Your task to perform on an android device: all mails in gmail Image 0: 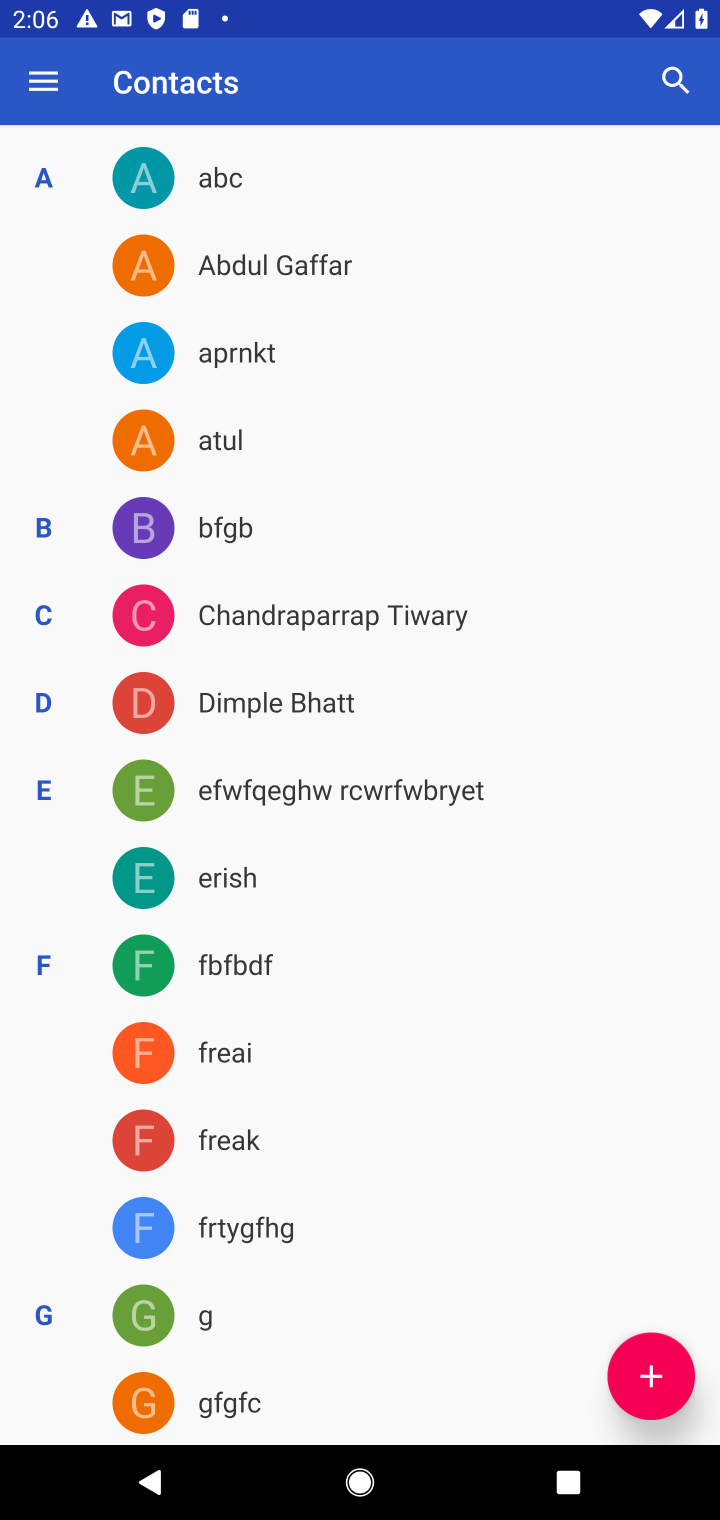
Step 0: press home button
Your task to perform on an android device: all mails in gmail Image 1: 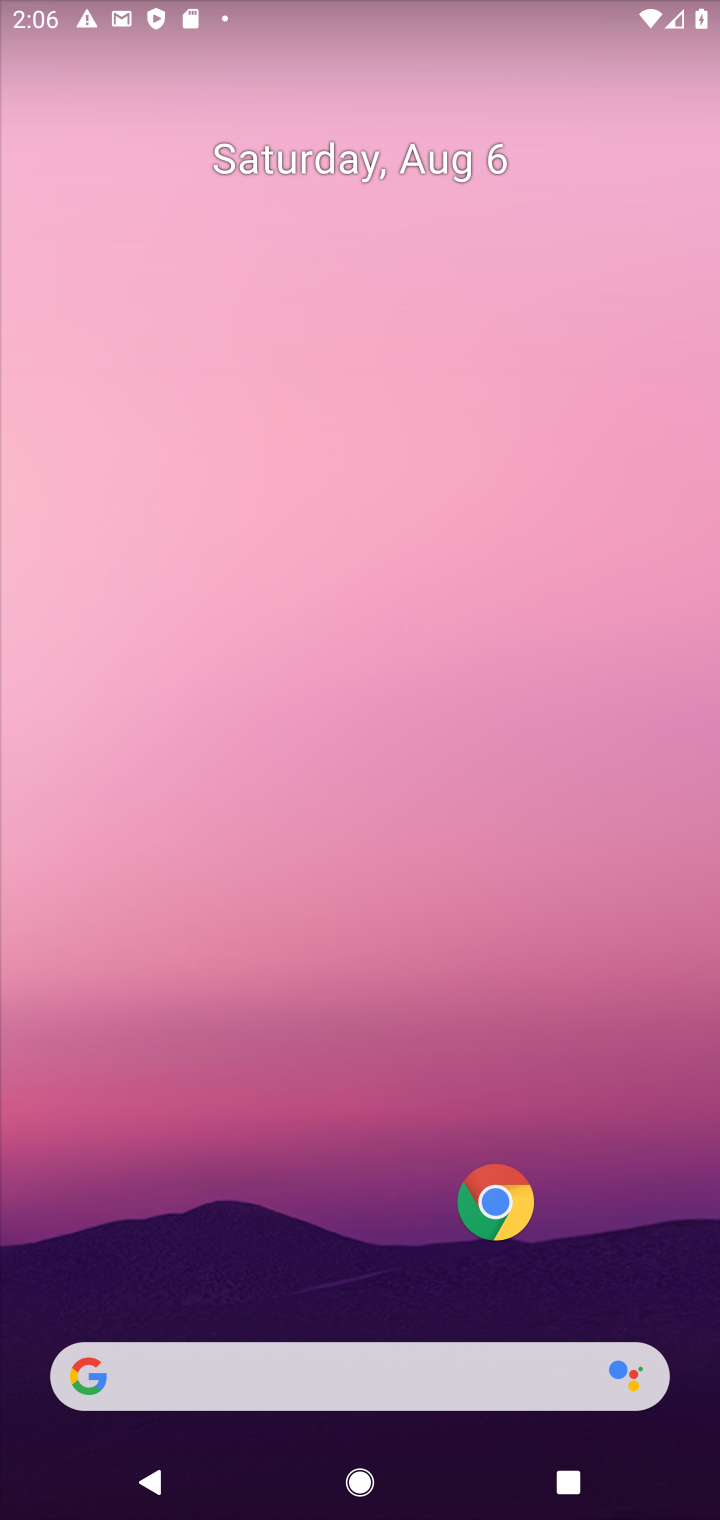
Step 1: click (351, 246)
Your task to perform on an android device: all mails in gmail Image 2: 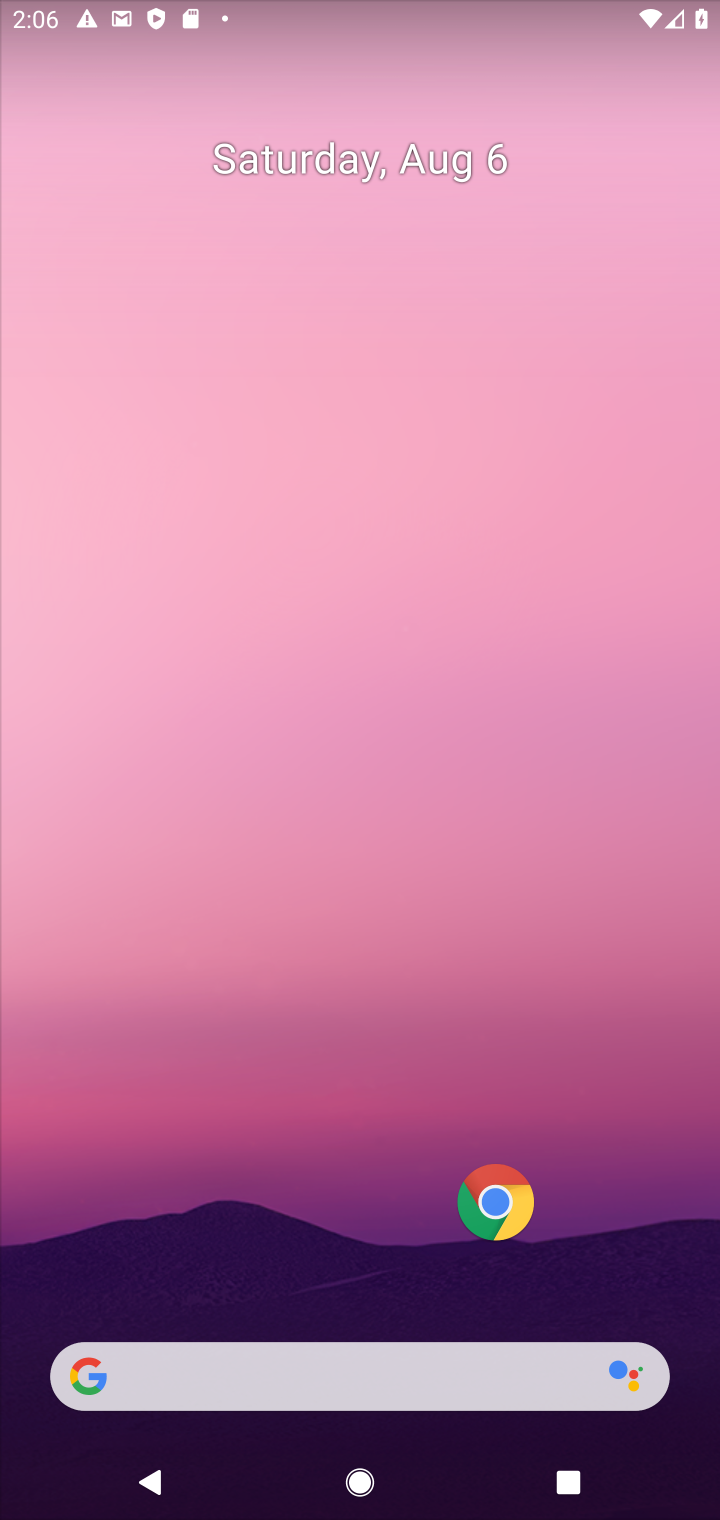
Step 2: drag from (275, 1245) to (452, 28)
Your task to perform on an android device: all mails in gmail Image 3: 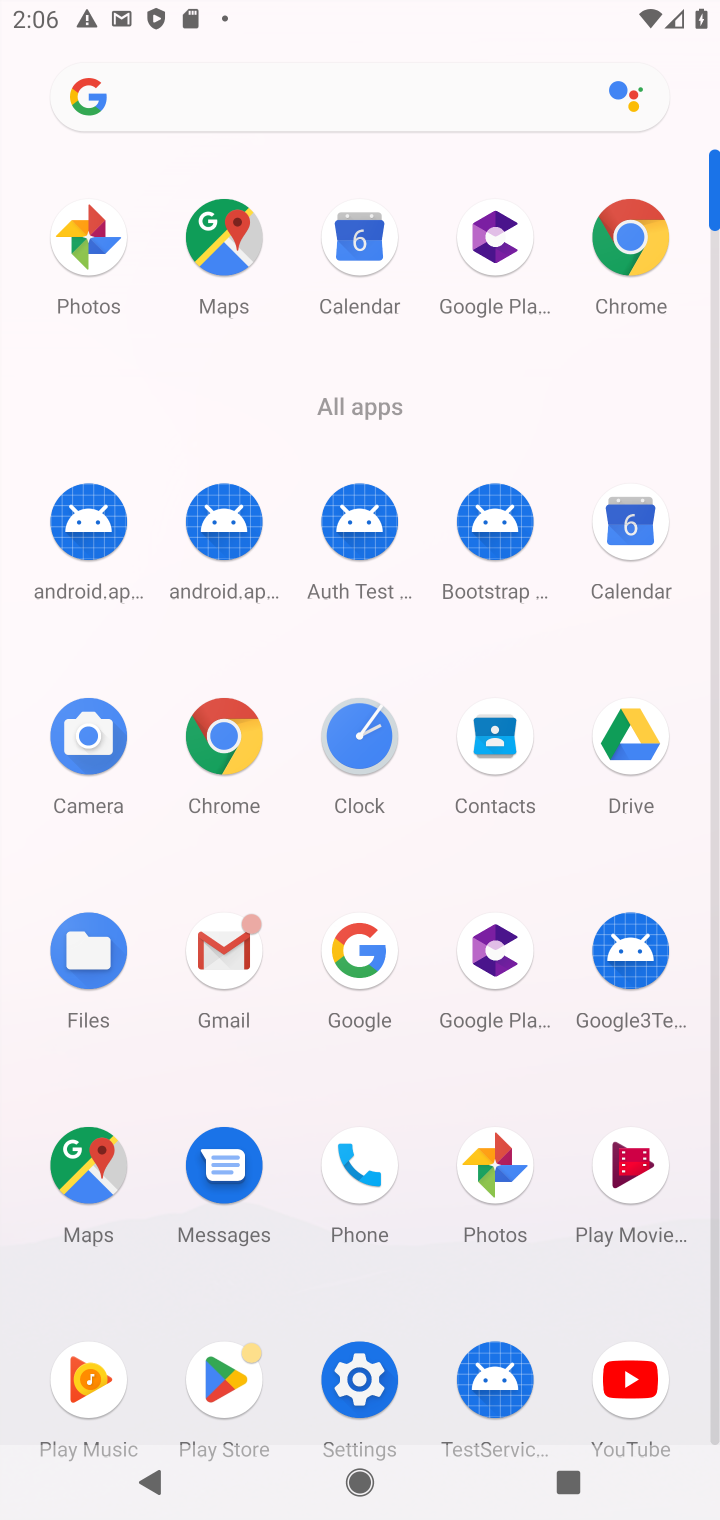
Step 3: click (211, 1053)
Your task to perform on an android device: all mails in gmail Image 4: 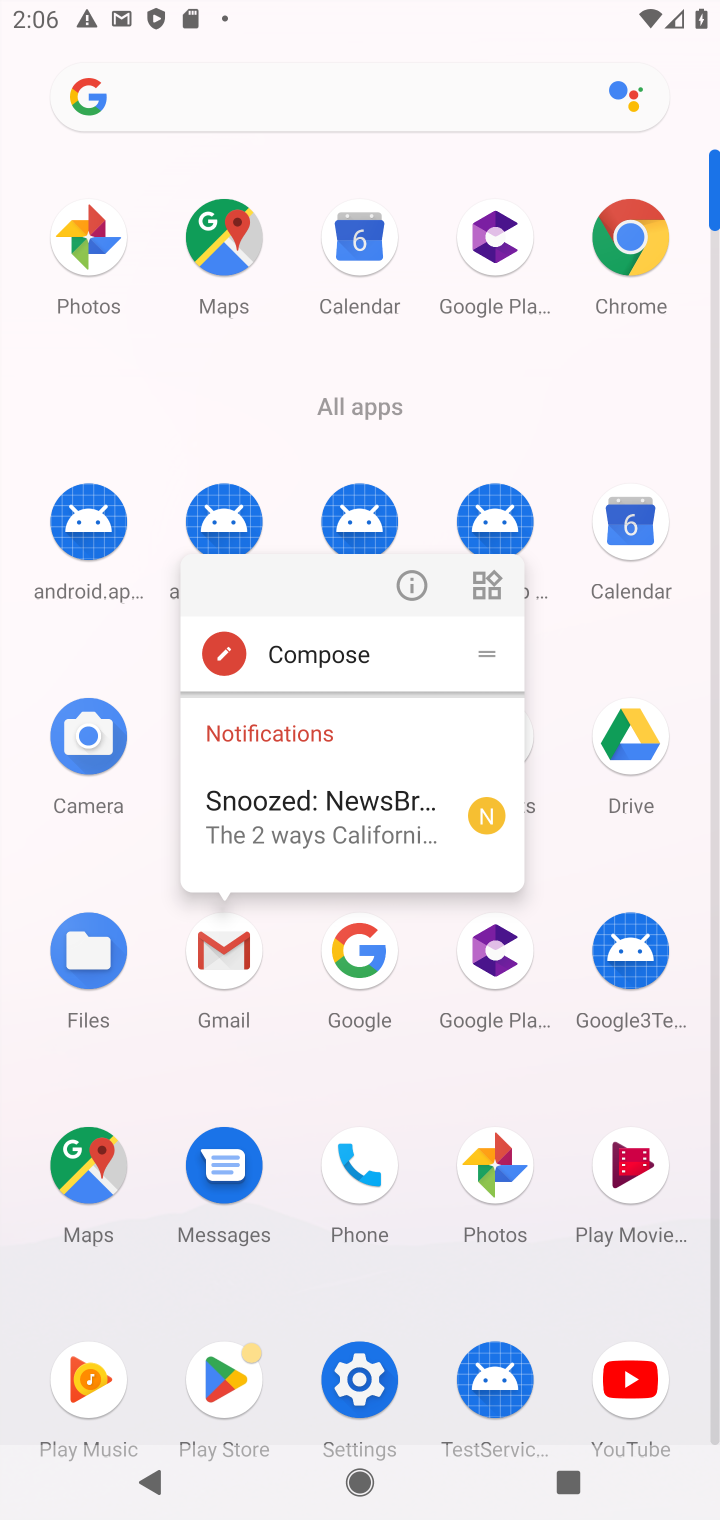
Step 4: click (214, 1022)
Your task to perform on an android device: all mails in gmail Image 5: 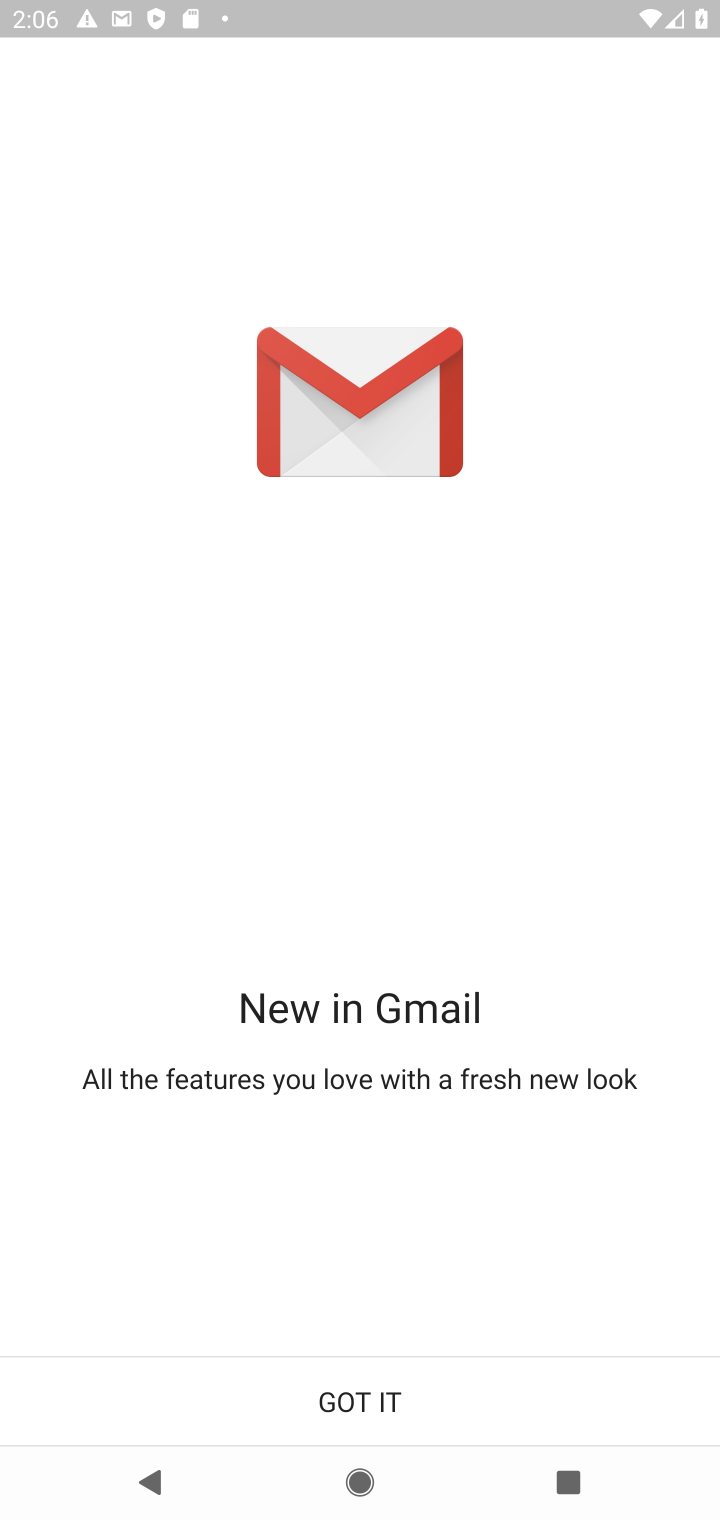
Step 5: click (352, 1380)
Your task to perform on an android device: all mails in gmail Image 6: 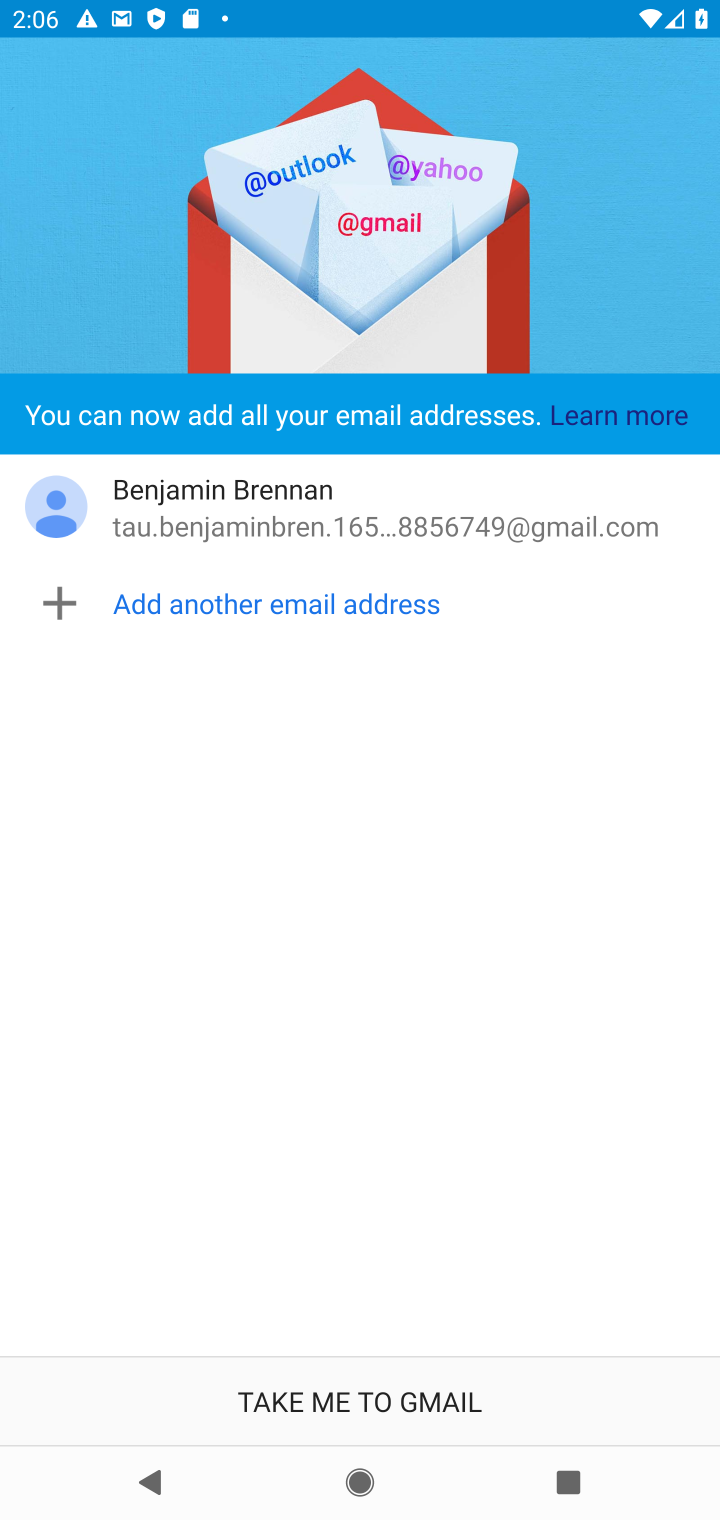
Step 6: click (329, 1385)
Your task to perform on an android device: all mails in gmail Image 7: 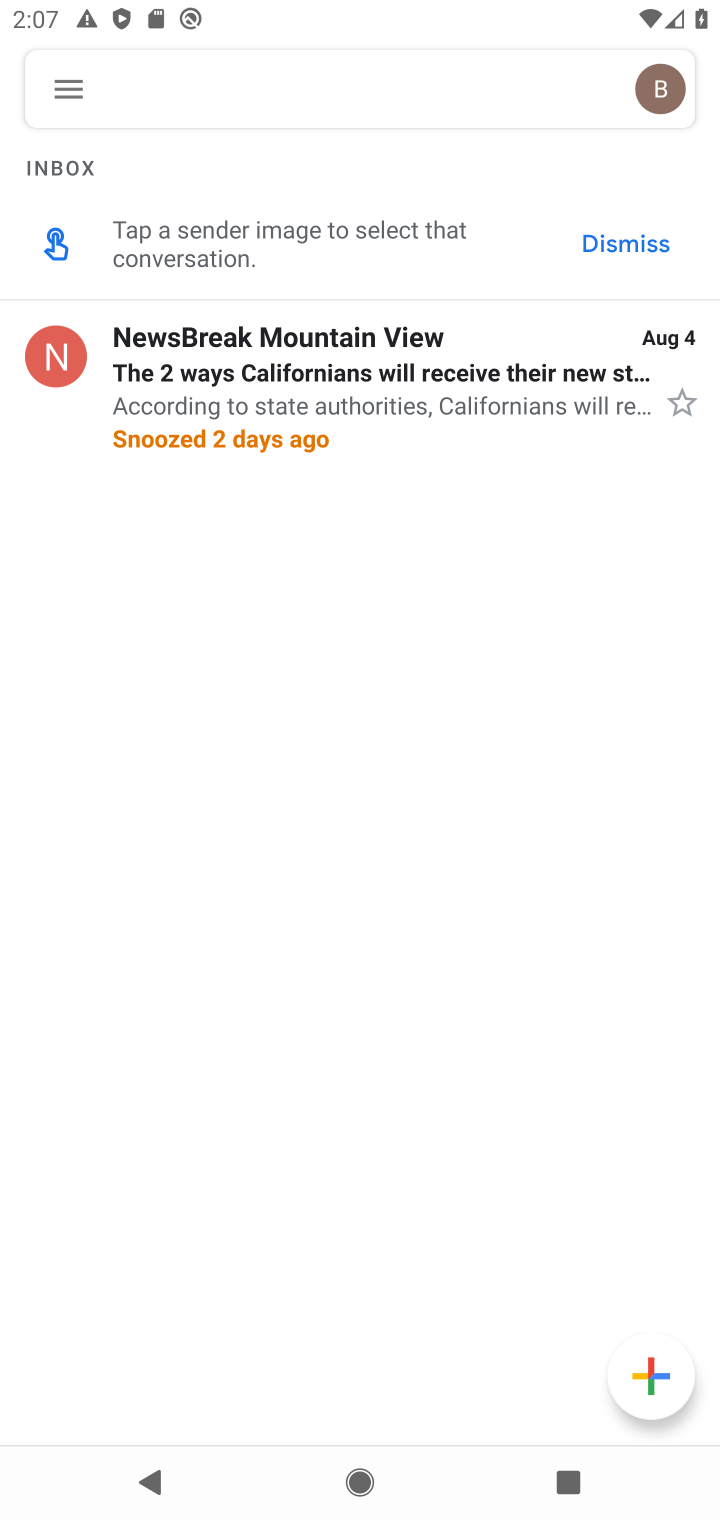
Step 7: click (73, 96)
Your task to perform on an android device: all mails in gmail Image 8: 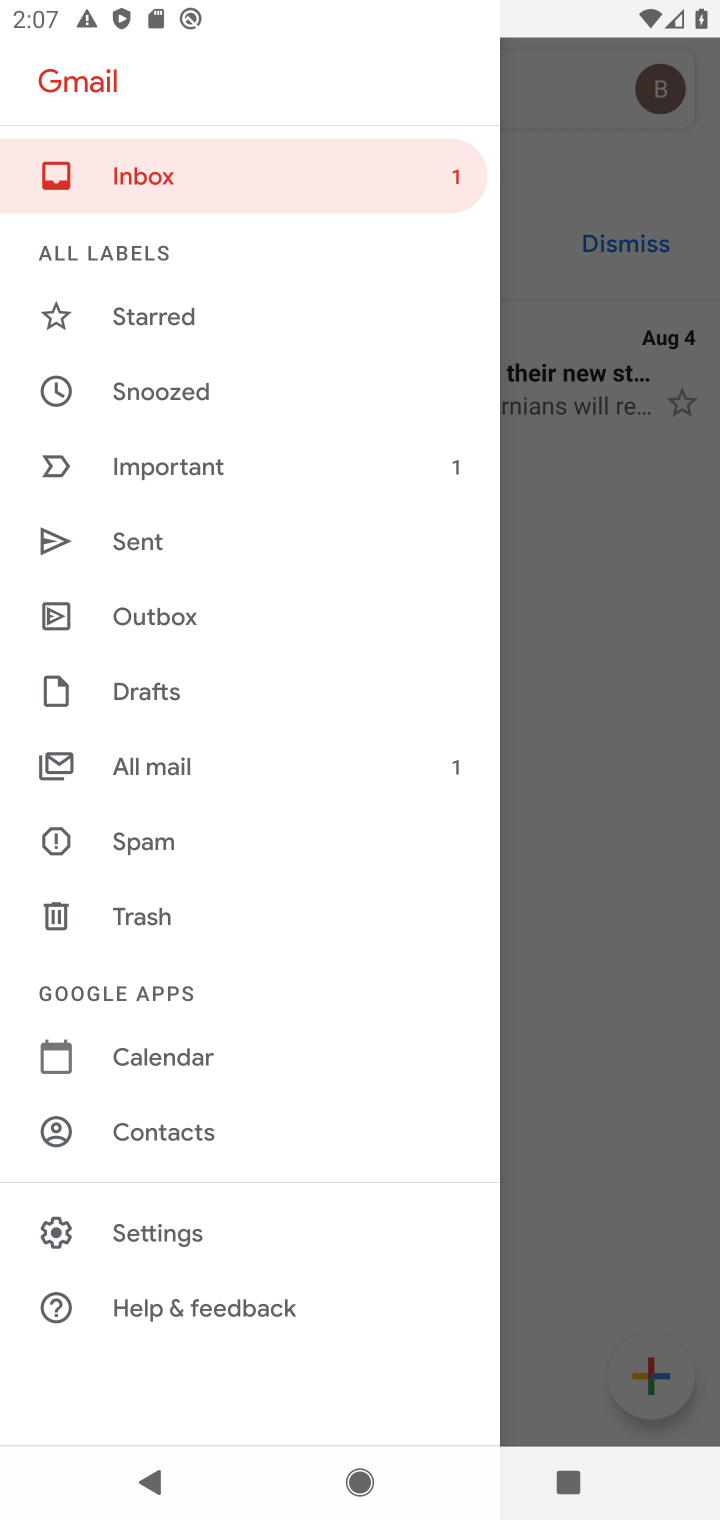
Step 8: click (161, 773)
Your task to perform on an android device: all mails in gmail Image 9: 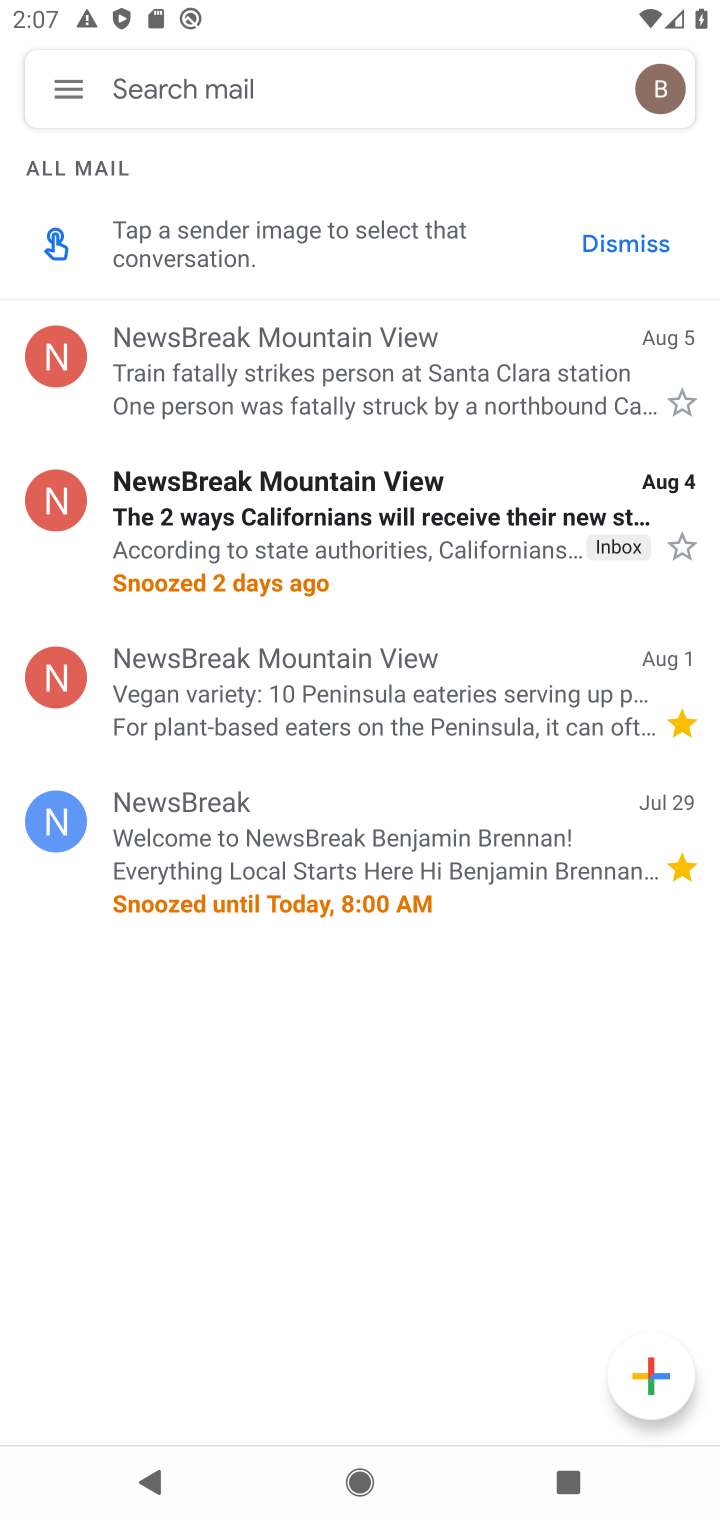
Step 9: task complete